Your task to perform on an android device: turn on wifi Image 0: 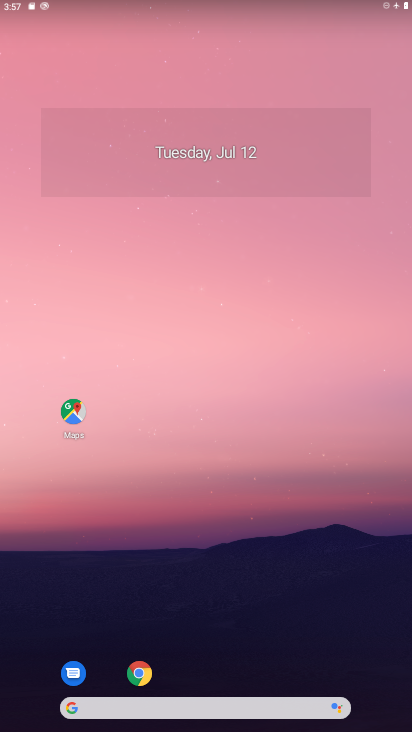
Step 0: drag from (197, 717) to (181, 130)
Your task to perform on an android device: turn on wifi Image 1: 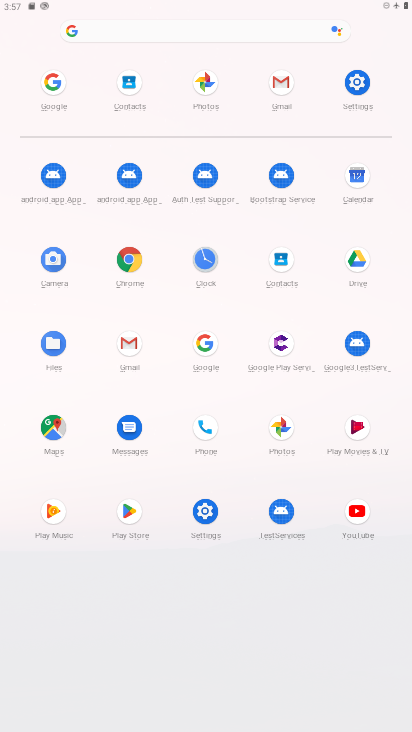
Step 1: click (356, 84)
Your task to perform on an android device: turn on wifi Image 2: 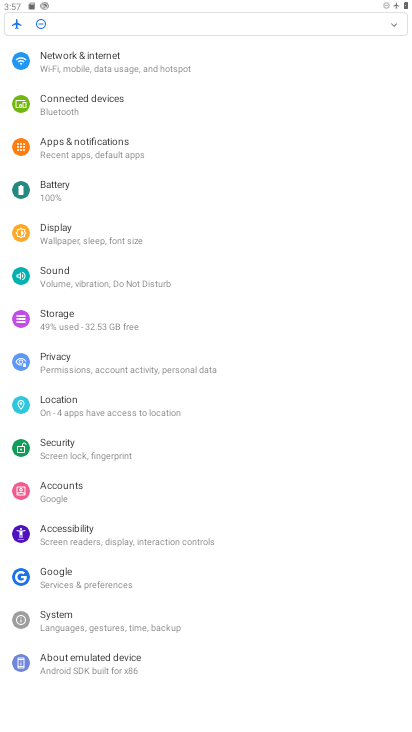
Step 2: click (103, 65)
Your task to perform on an android device: turn on wifi Image 3: 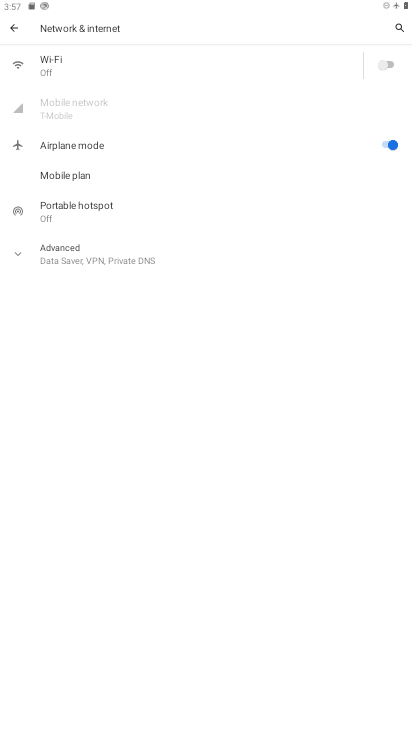
Step 3: click (383, 66)
Your task to perform on an android device: turn on wifi Image 4: 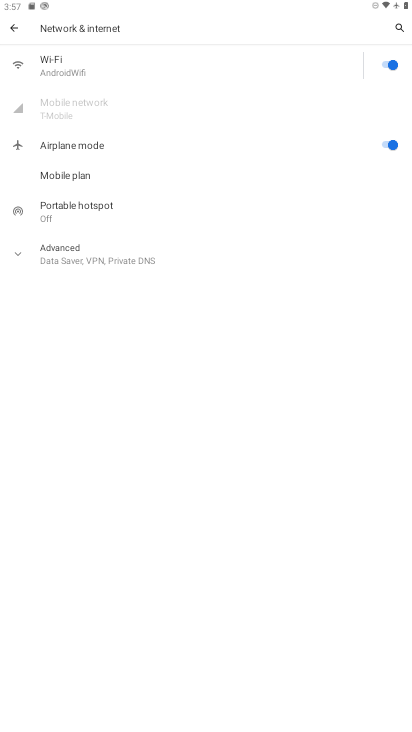
Step 4: task complete